Your task to perform on an android device: Clear the cart on bestbuy.com. Image 0: 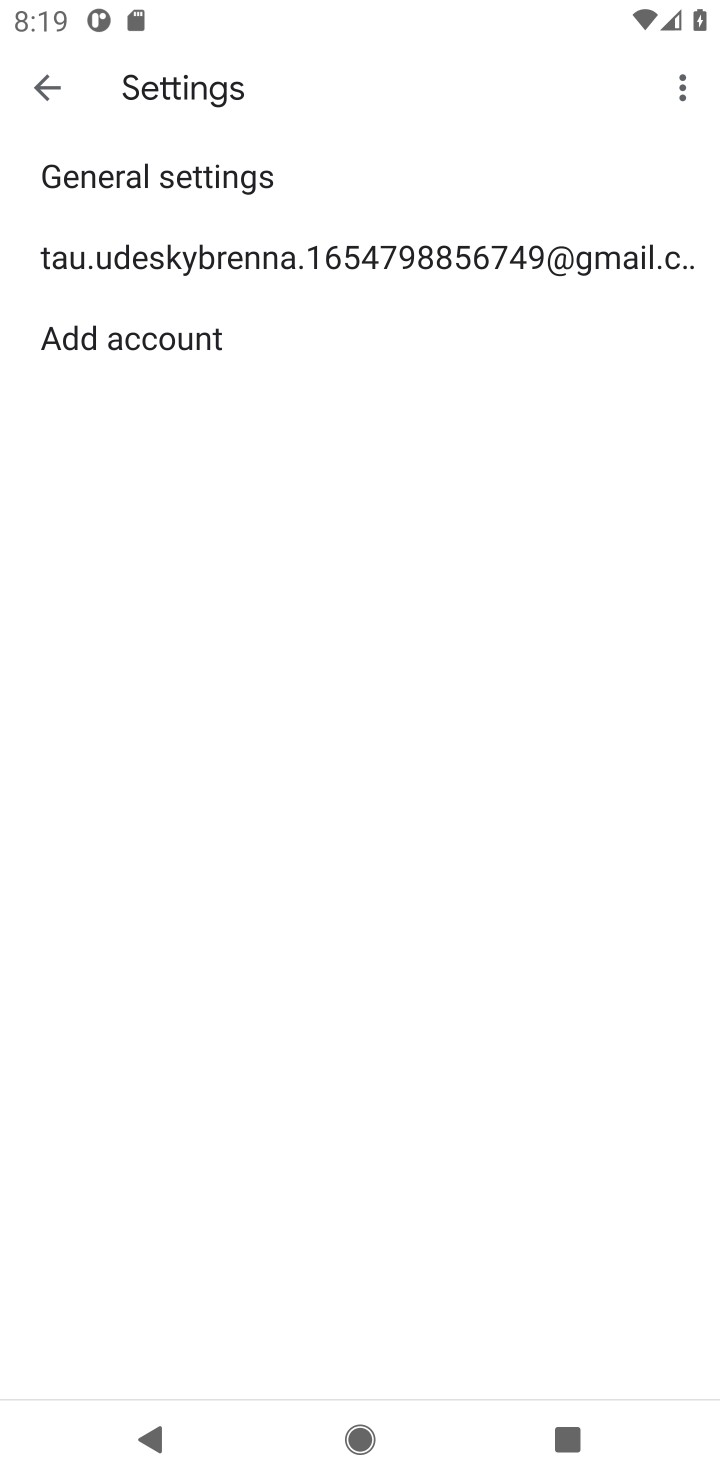
Step 0: press home button
Your task to perform on an android device: Clear the cart on bestbuy.com. Image 1: 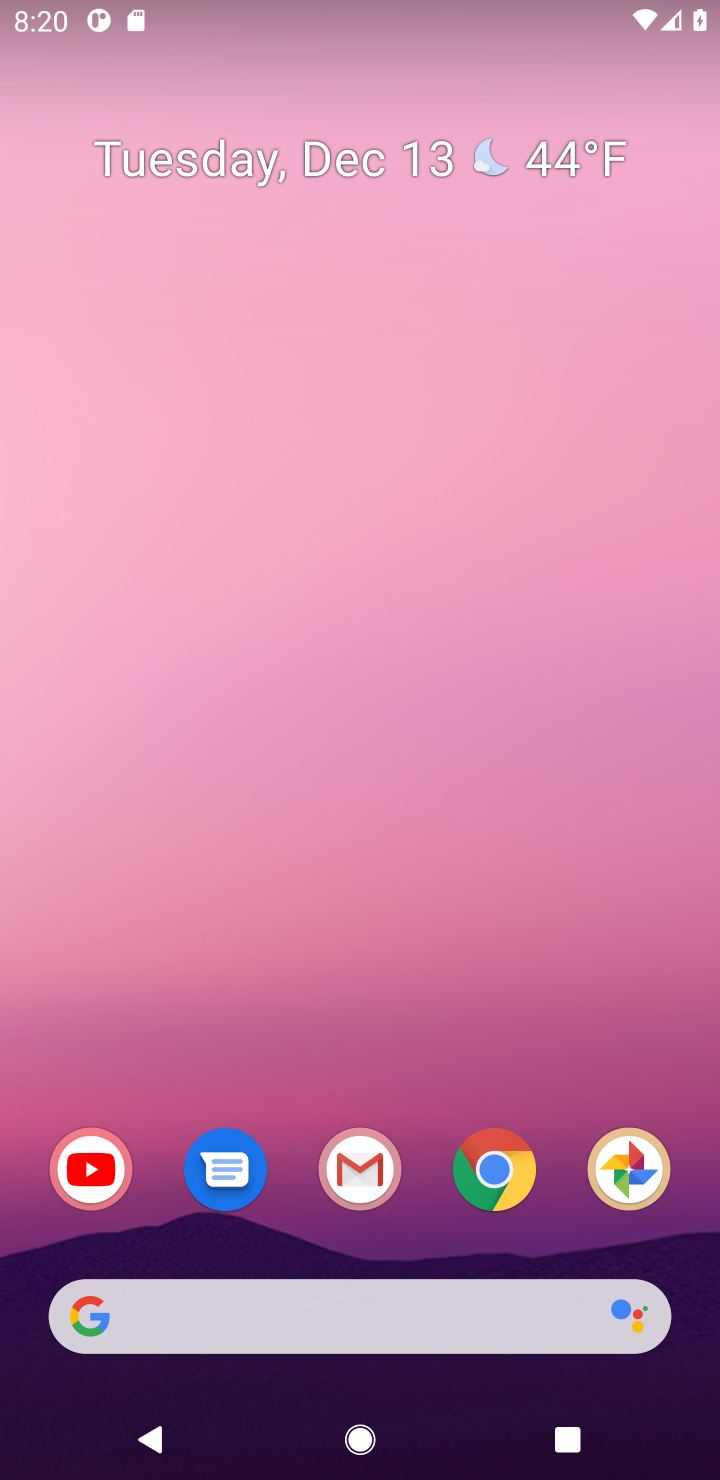
Step 1: click (474, 1200)
Your task to perform on an android device: Clear the cart on bestbuy.com. Image 2: 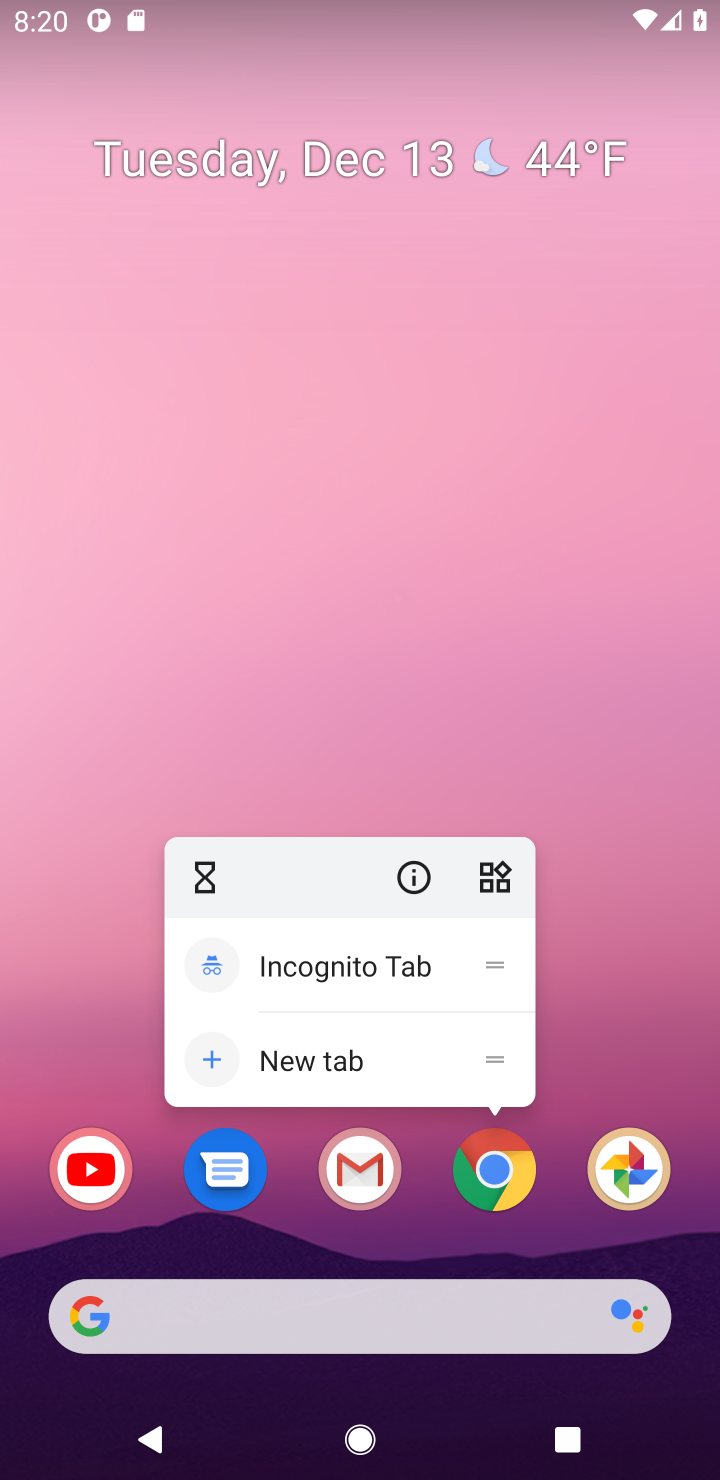
Step 2: click (491, 1182)
Your task to perform on an android device: Clear the cart on bestbuy.com. Image 3: 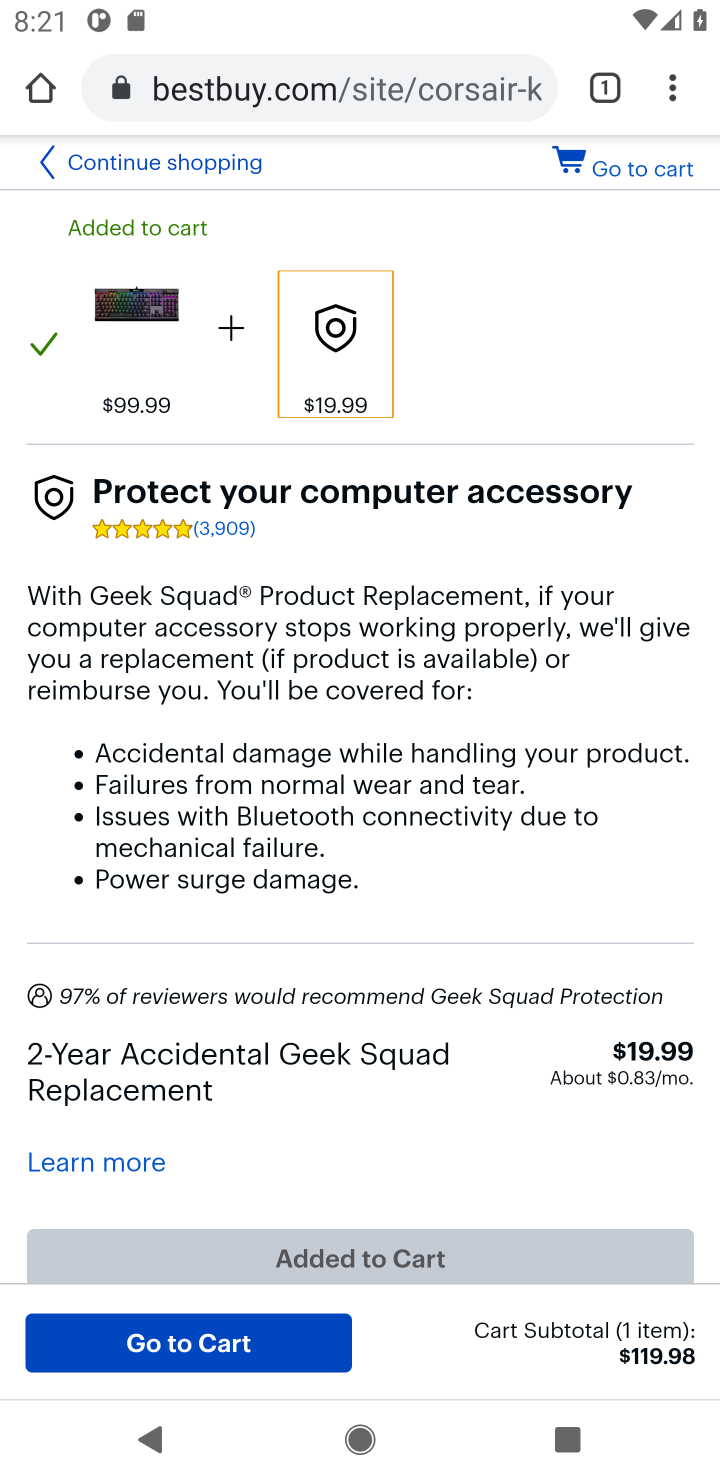
Step 3: task complete